Your task to perform on an android device: Open the web browser Image 0: 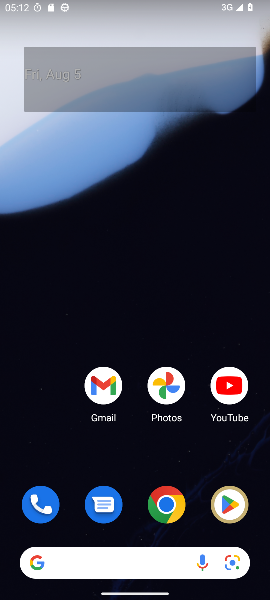
Step 0: drag from (17, 316) to (228, 146)
Your task to perform on an android device: Open the web browser Image 1: 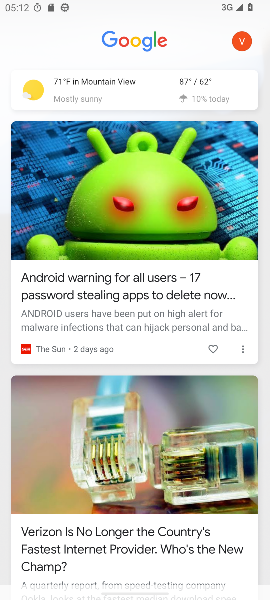
Step 1: click (6, 203)
Your task to perform on an android device: Open the web browser Image 2: 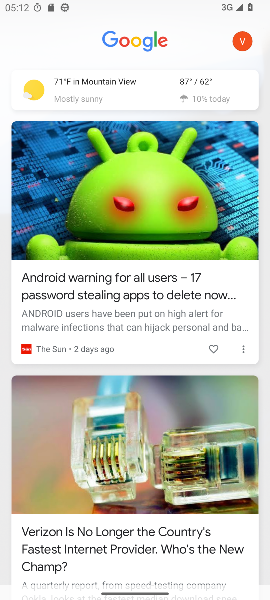
Step 2: task complete